Your task to perform on an android device: check google app version Image 0: 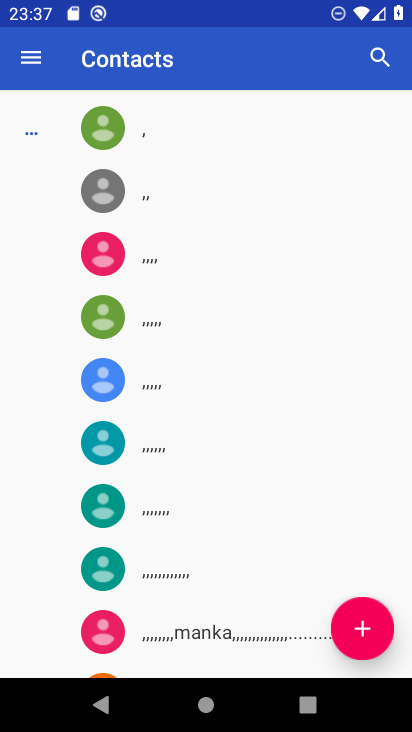
Step 0: press home button
Your task to perform on an android device: check google app version Image 1: 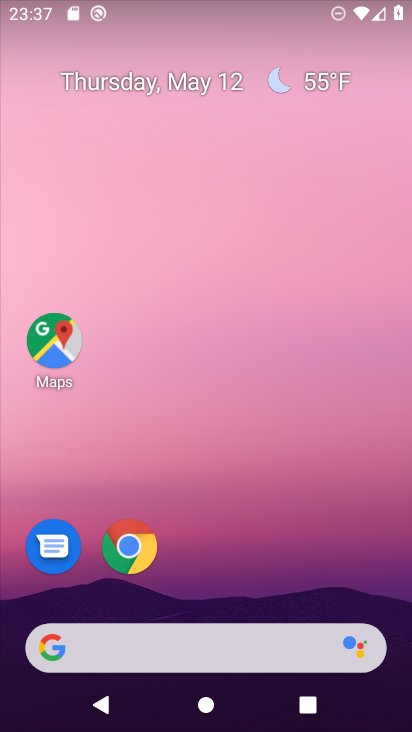
Step 1: drag from (180, 588) to (164, 154)
Your task to perform on an android device: check google app version Image 2: 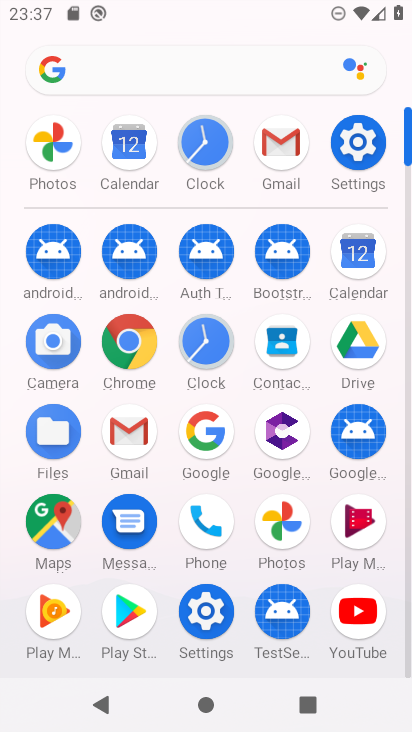
Step 2: click (206, 438)
Your task to perform on an android device: check google app version Image 3: 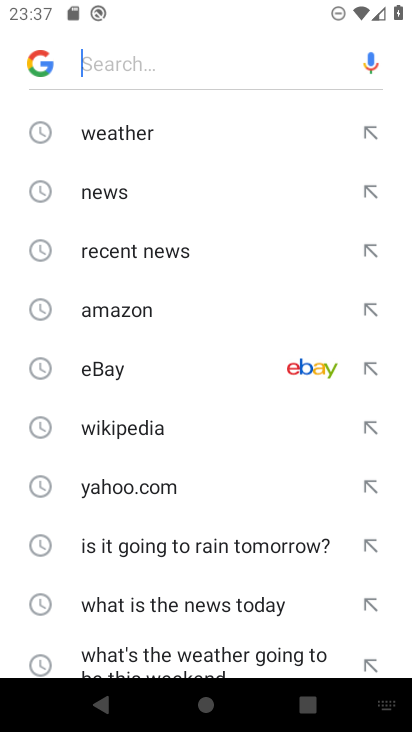
Step 3: click (94, 696)
Your task to perform on an android device: check google app version Image 4: 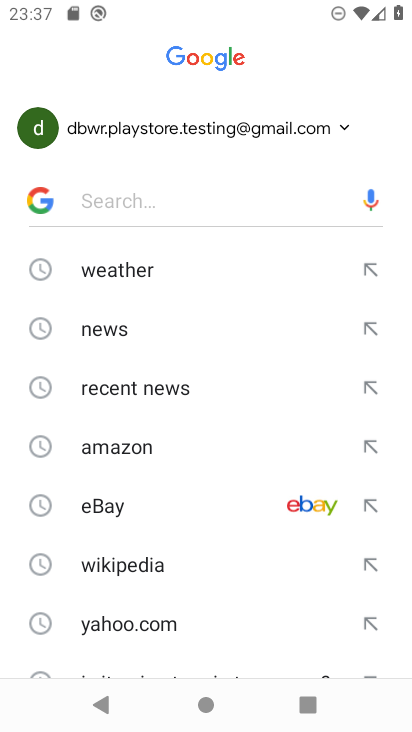
Step 4: click (94, 703)
Your task to perform on an android device: check google app version Image 5: 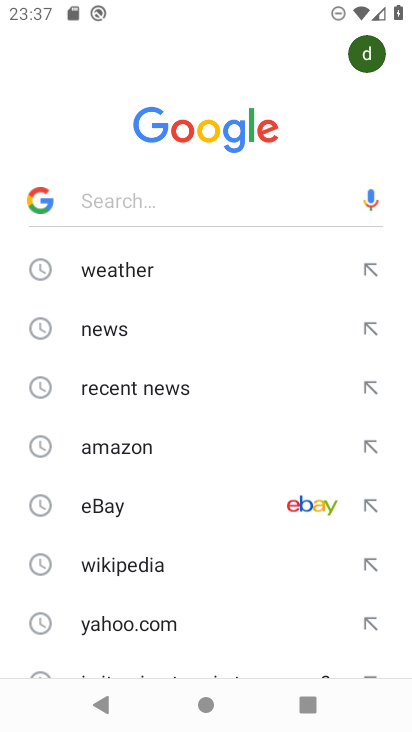
Step 5: click (99, 698)
Your task to perform on an android device: check google app version Image 6: 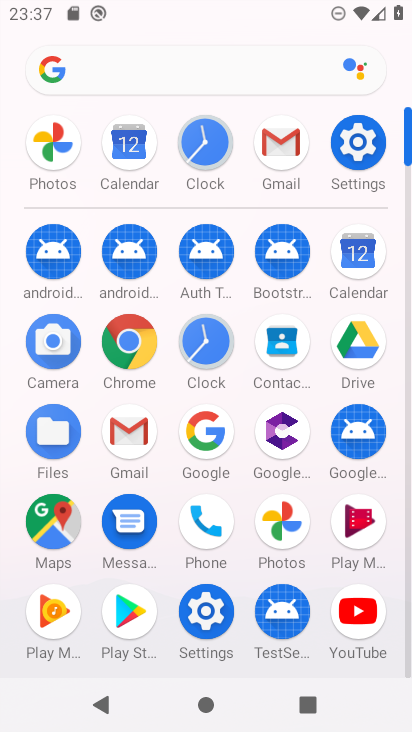
Step 6: click (304, 428)
Your task to perform on an android device: check google app version Image 7: 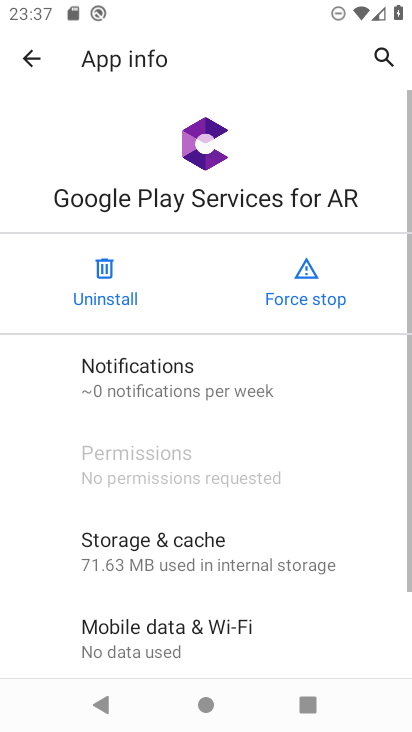
Step 7: click (43, 58)
Your task to perform on an android device: check google app version Image 8: 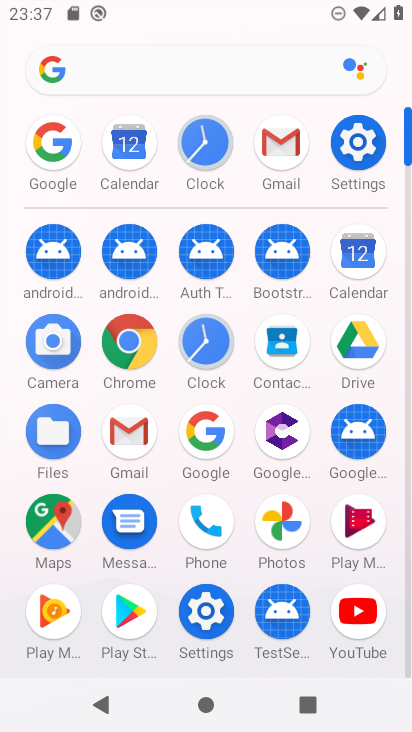
Step 8: click (209, 446)
Your task to perform on an android device: check google app version Image 9: 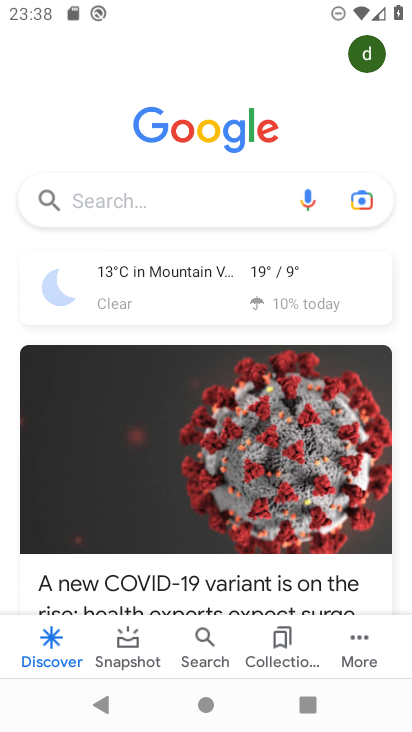
Step 9: click (355, 656)
Your task to perform on an android device: check google app version Image 10: 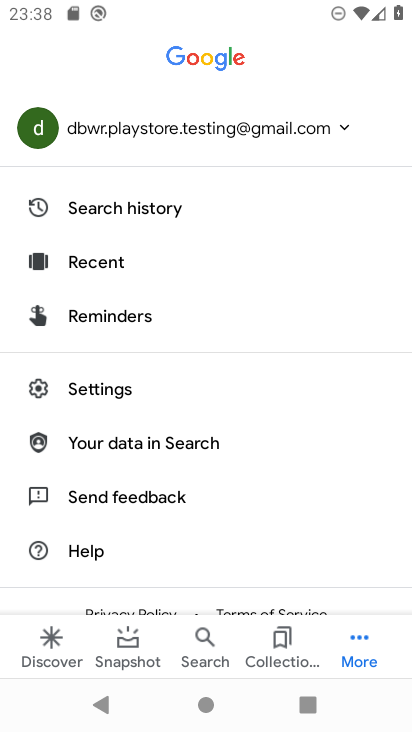
Step 10: click (110, 385)
Your task to perform on an android device: check google app version Image 11: 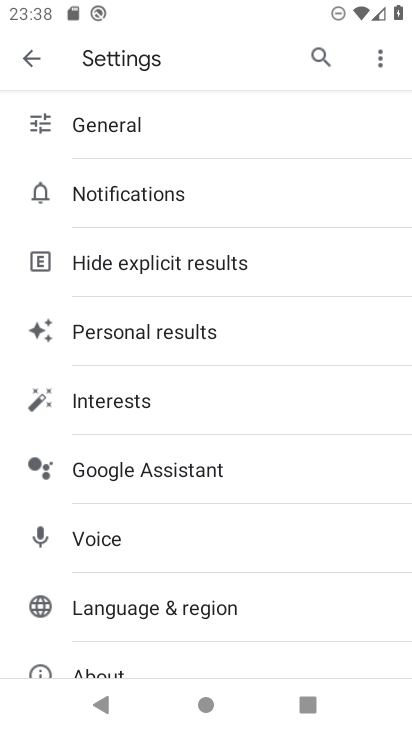
Step 11: drag from (170, 589) to (232, 173)
Your task to perform on an android device: check google app version Image 12: 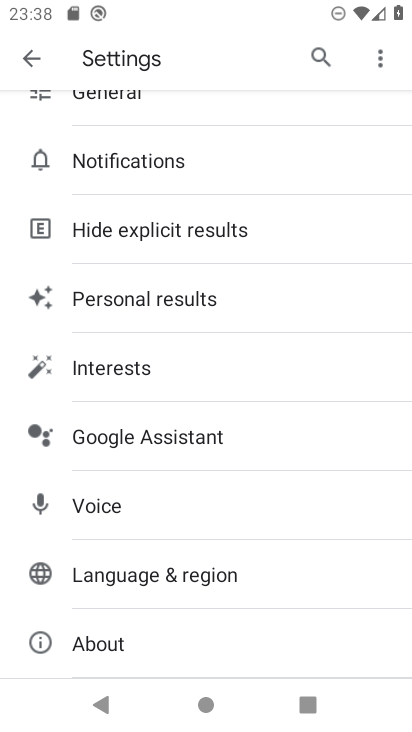
Step 12: click (109, 639)
Your task to perform on an android device: check google app version Image 13: 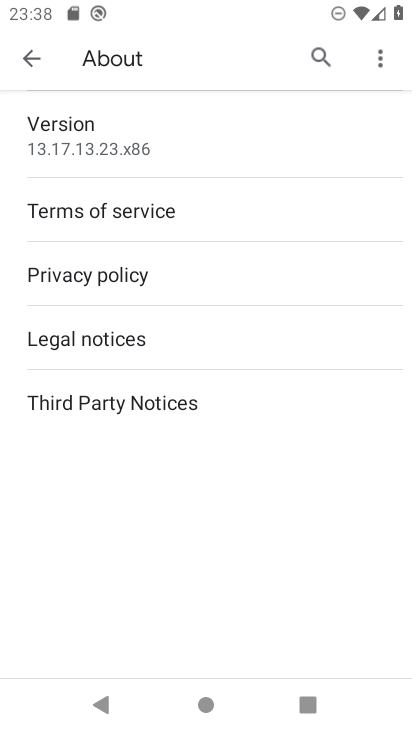
Step 13: task complete